Your task to perform on an android device: Go to Yahoo.com Image 0: 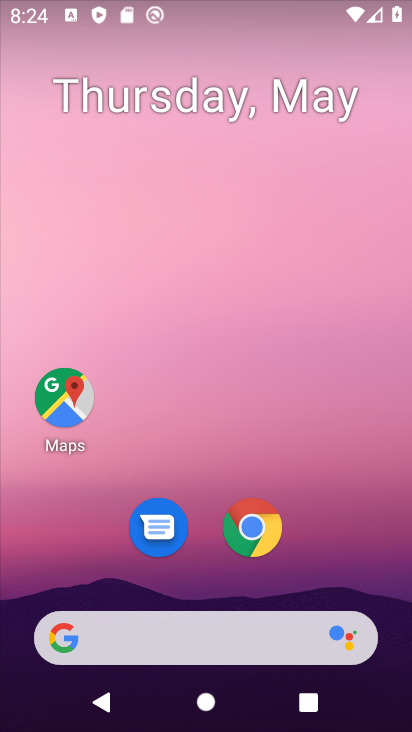
Step 0: press home button
Your task to perform on an android device: Go to Yahoo.com Image 1: 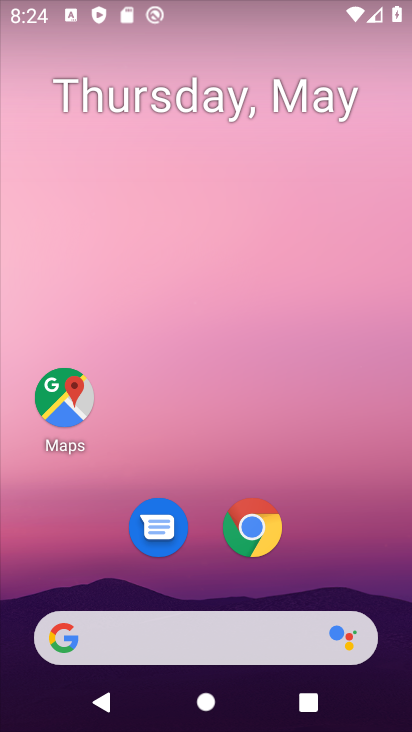
Step 1: click (240, 531)
Your task to perform on an android device: Go to Yahoo.com Image 2: 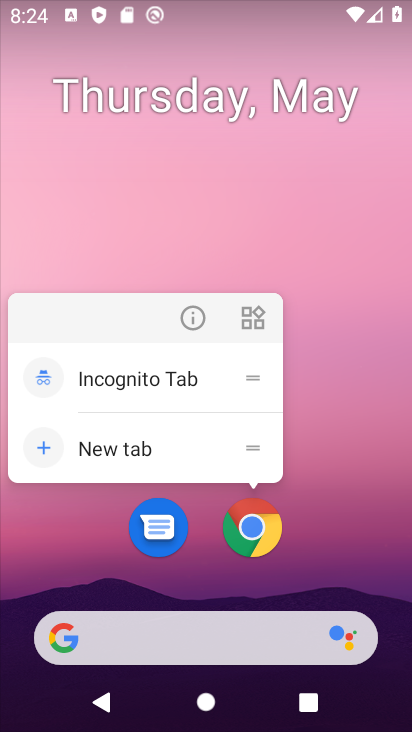
Step 2: click (245, 531)
Your task to perform on an android device: Go to Yahoo.com Image 3: 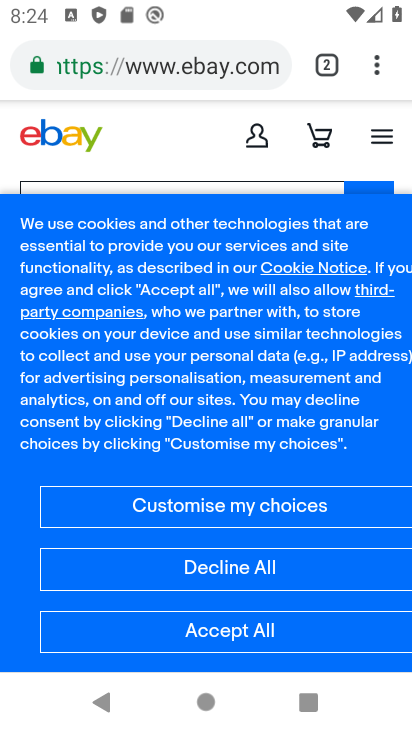
Step 3: click (332, 73)
Your task to perform on an android device: Go to Yahoo.com Image 4: 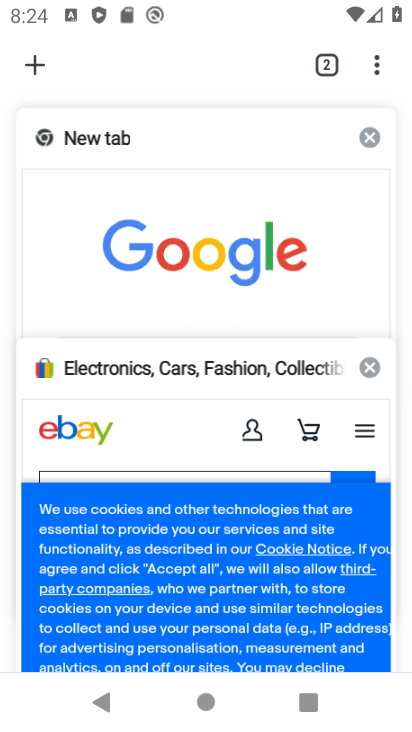
Step 4: click (363, 364)
Your task to perform on an android device: Go to Yahoo.com Image 5: 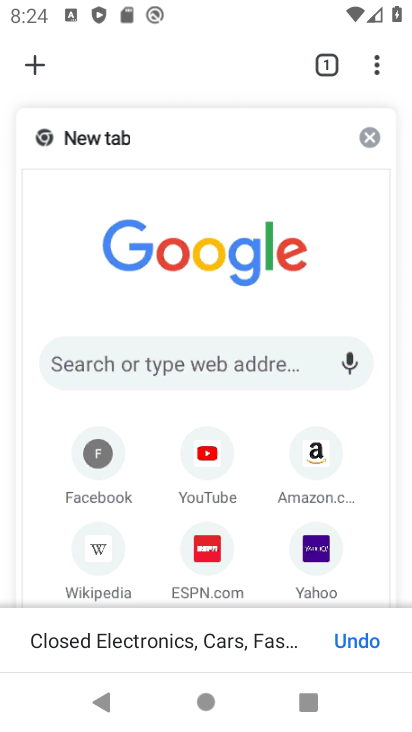
Step 5: click (318, 558)
Your task to perform on an android device: Go to Yahoo.com Image 6: 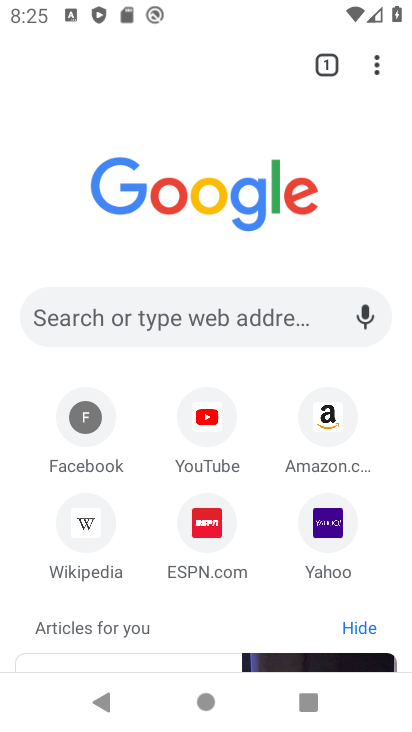
Step 6: click (353, 521)
Your task to perform on an android device: Go to Yahoo.com Image 7: 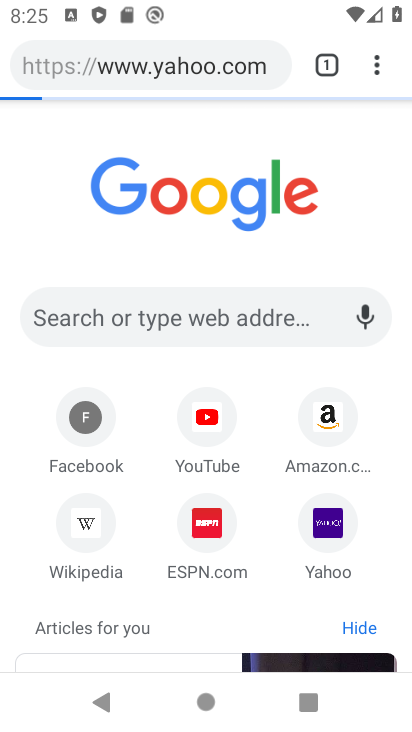
Step 7: click (347, 527)
Your task to perform on an android device: Go to Yahoo.com Image 8: 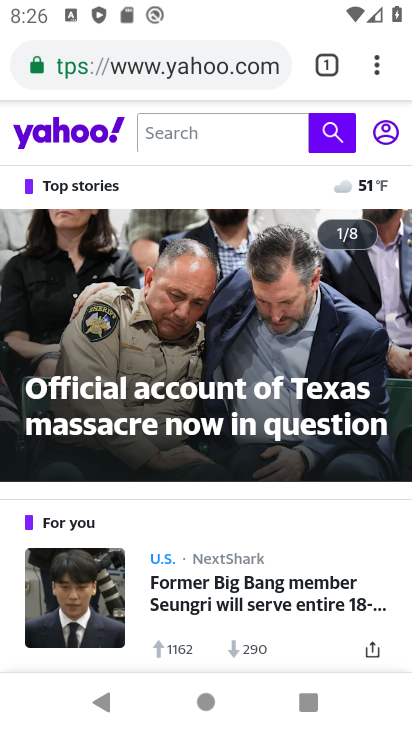
Step 8: task complete